Your task to perform on an android device: Open Google Chrome Image 0: 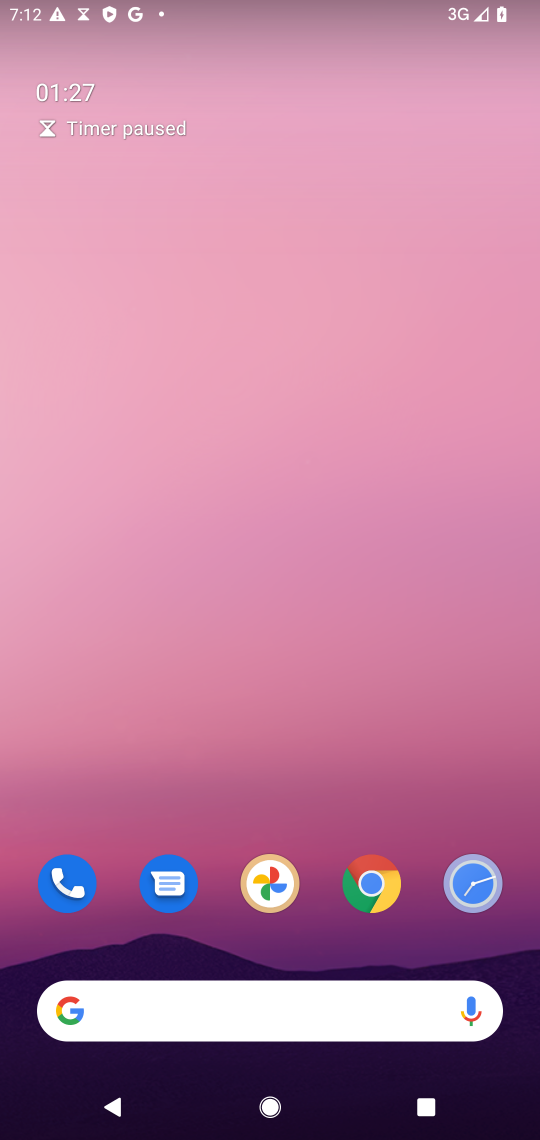
Step 0: click (371, 884)
Your task to perform on an android device: Open Google Chrome Image 1: 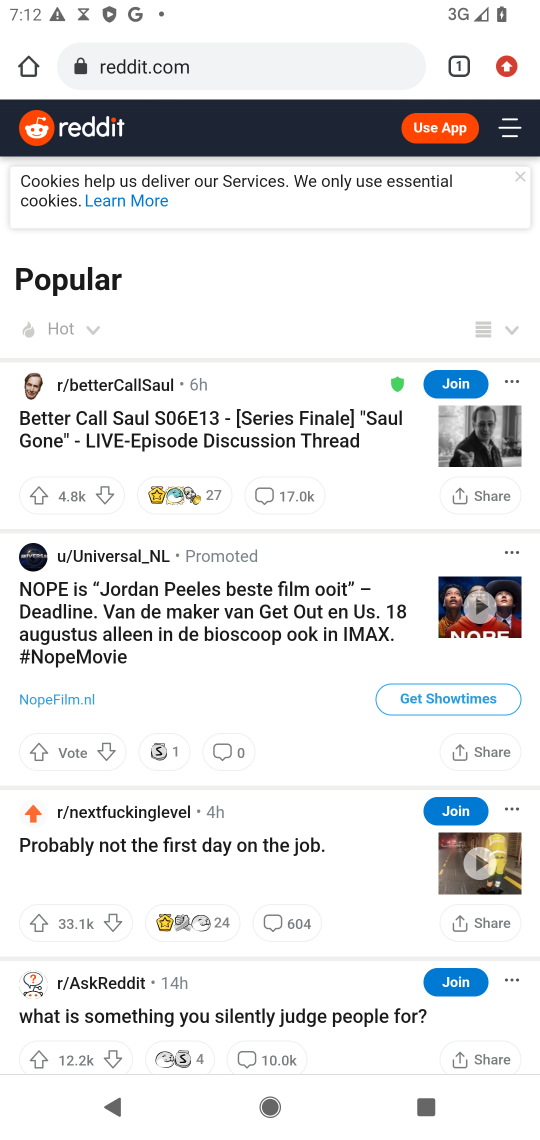
Step 1: task complete